Your task to perform on an android device: Go to wifi settings Image 0: 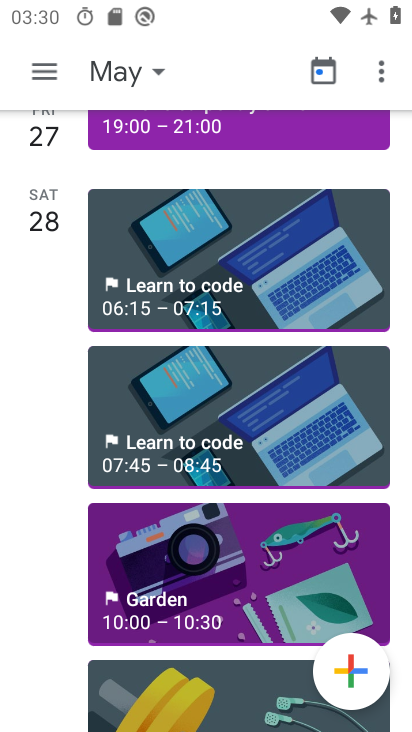
Step 0: press home button
Your task to perform on an android device: Go to wifi settings Image 1: 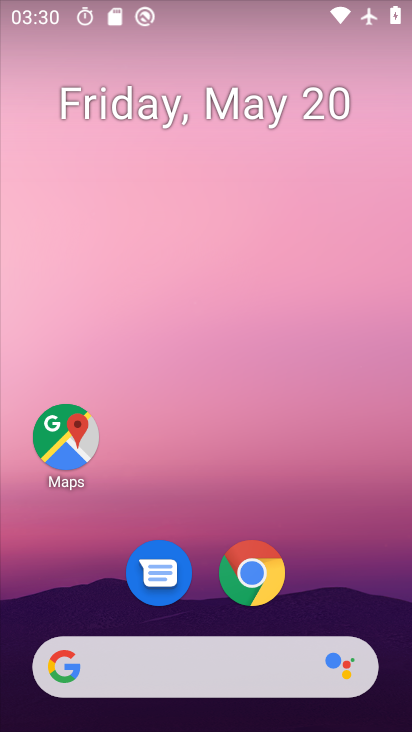
Step 1: drag from (208, 608) to (177, 264)
Your task to perform on an android device: Go to wifi settings Image 2: 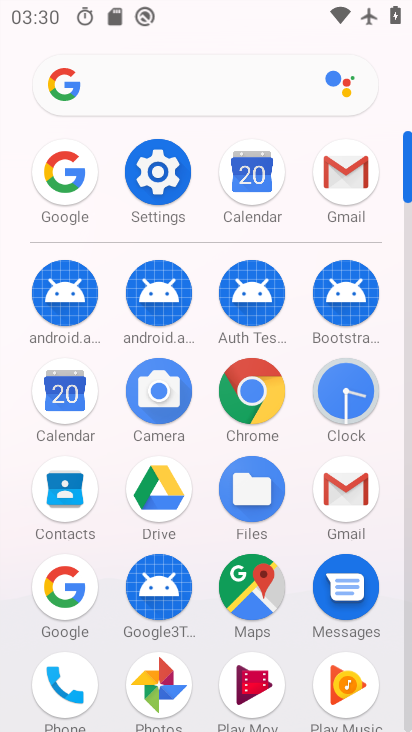
Step 2: click (153, 174)
Your task to perform on an android device: Go to wifi settings Image 3: 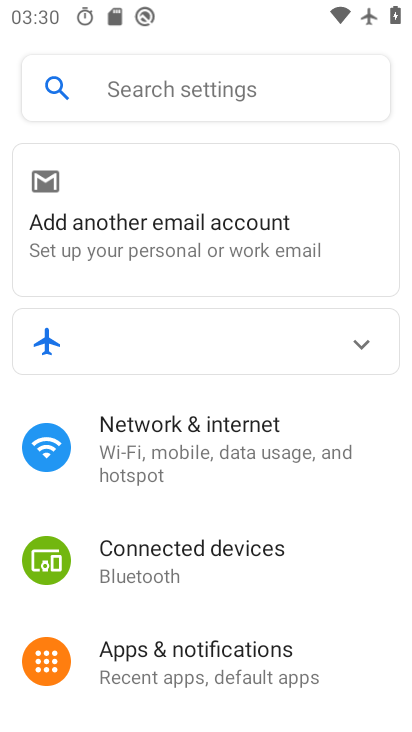
Step 3: click (206, 415)
Your task to perform on an android device: Go to wifi settings Image 4: 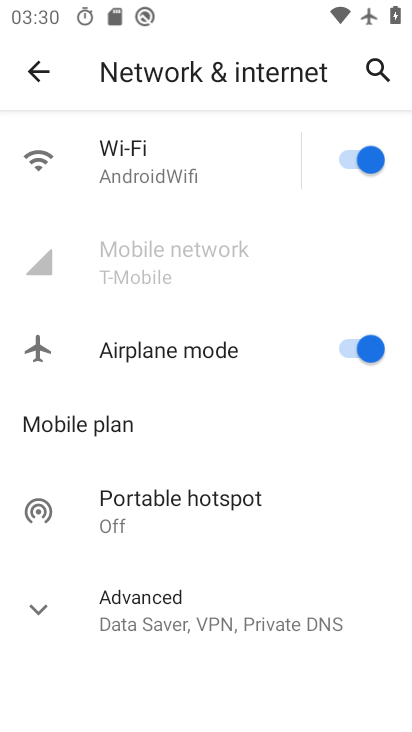
Step 4: click (151, 156)
Your task to perform on an android device: Go to wifi settings Image 5: 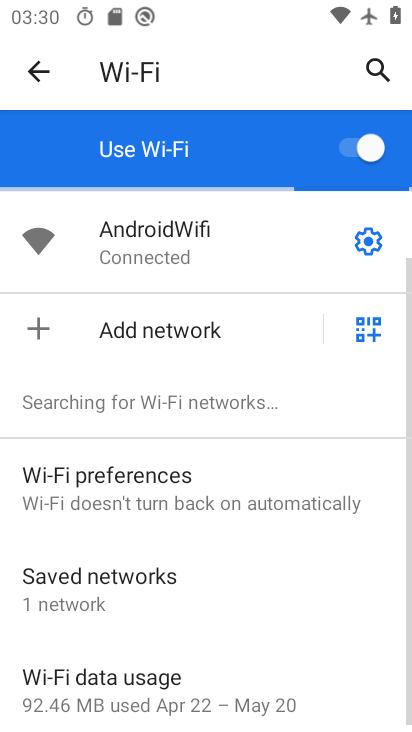
Step 5: task complete